Your task to perform on an android device: Go to Amazon Image 0: 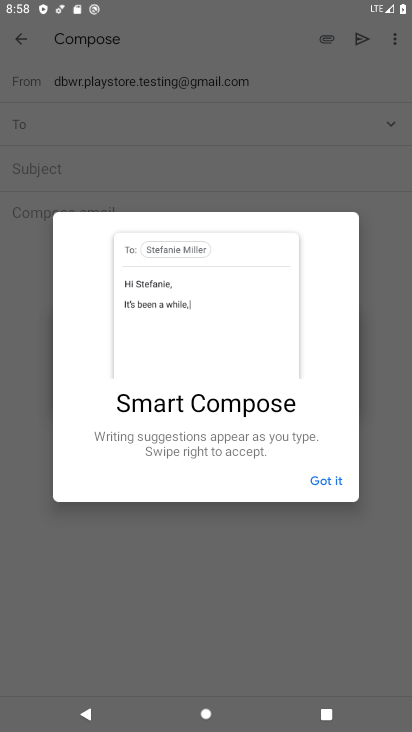
Step 0: press home button
Your task to perform on an android device: Go to Amazon Image 1: 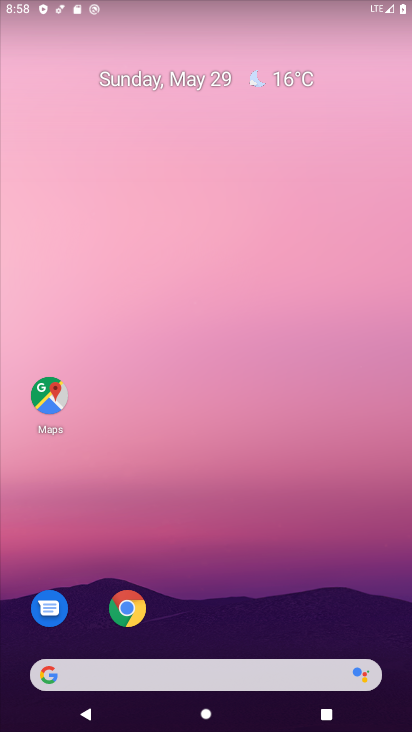
Step 1: click (128, 606)
Your task to perform on an android device: Go to Amazon Image 2: 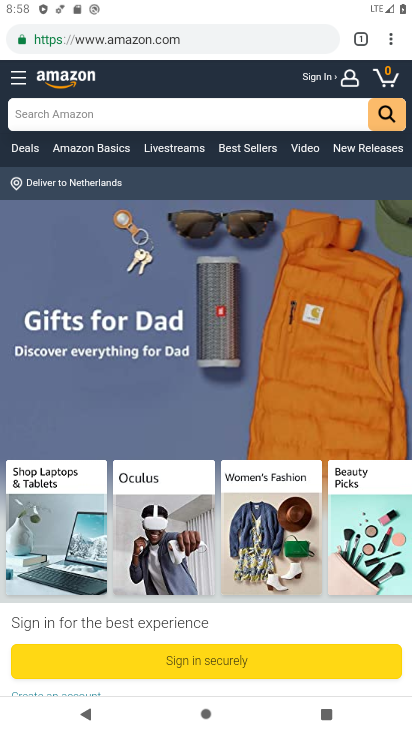
Step 2: task complete